Your task to perform on an android device: turn off location Image 0: 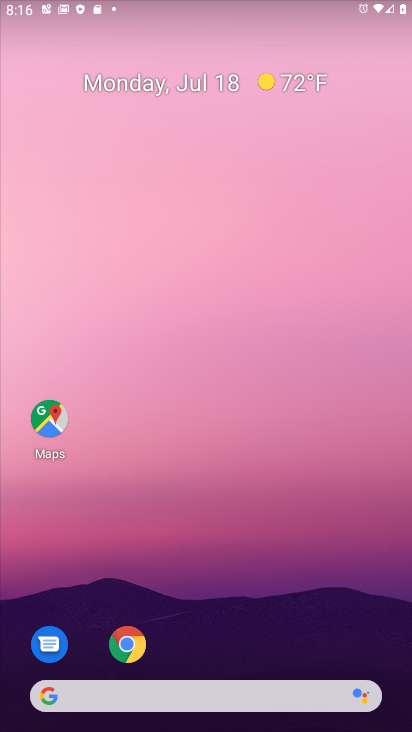
Step 0: drag from (397, 681) to (250, 111)
Your task to perform on an android device: turn off location Image 1: 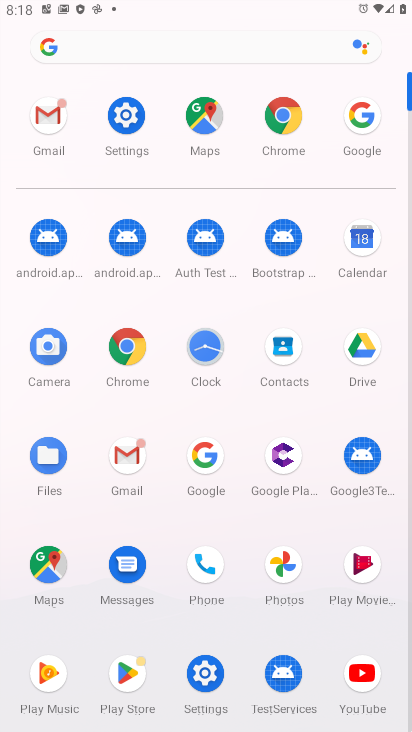
Step 1: click (205, 656)
Your task to perform on an android device: turn off location Image 2: 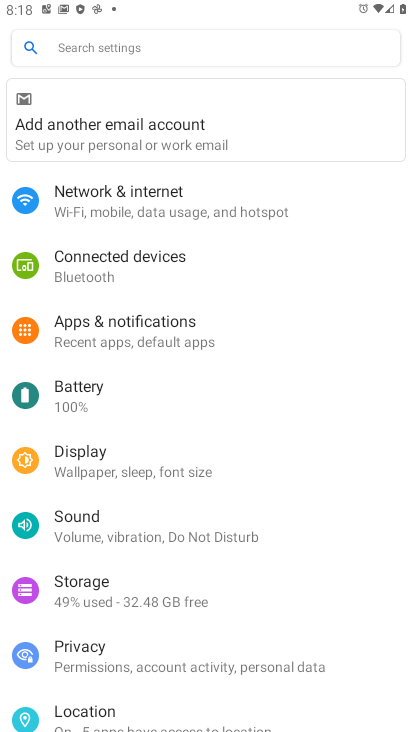
Step 2: click (77, 721)
Your task to perform on an android device: turn off location Image 3: 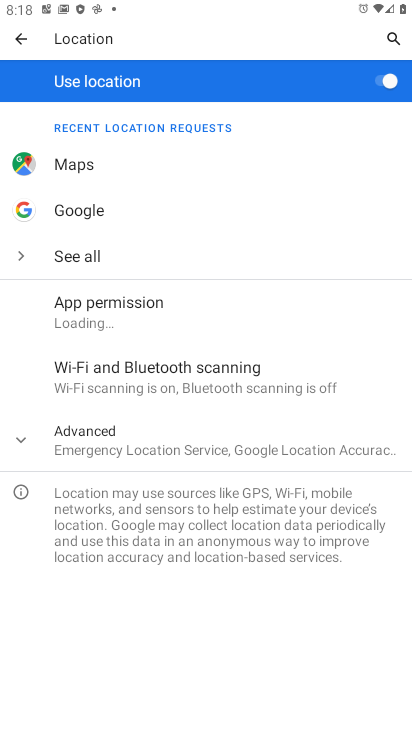
Step 3: click (368, 76)
Your task to perform on an android device: turn off location Image 4: 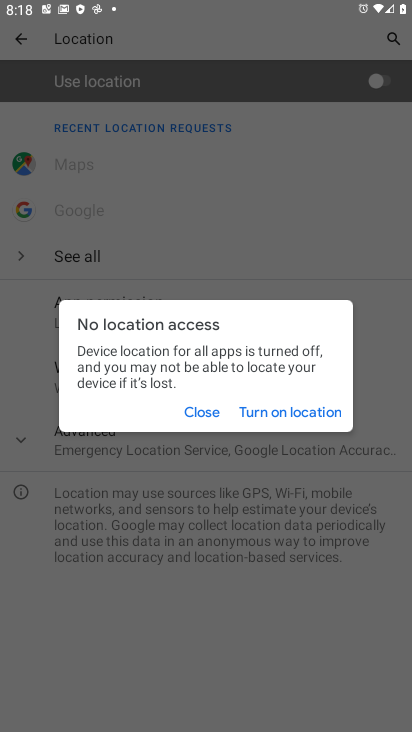
Step 4: task complete